Your task to perform on an android device: open chrome and create a bookmark for the current page Image 0: 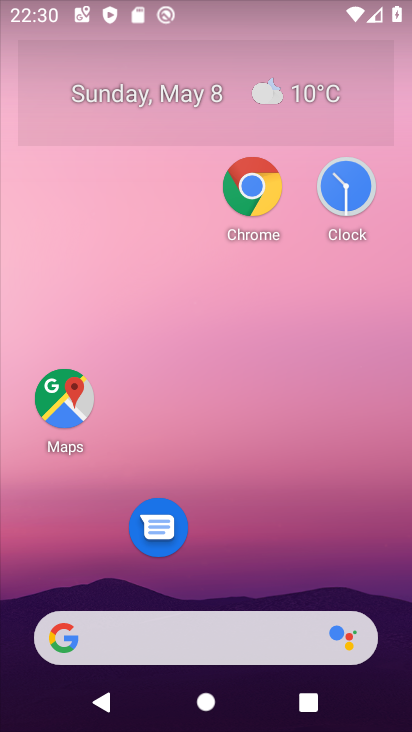
Step 0: click (242, 192)
Your task to perform on an android device: open chrome and create a bookmark for the current page Image 1: 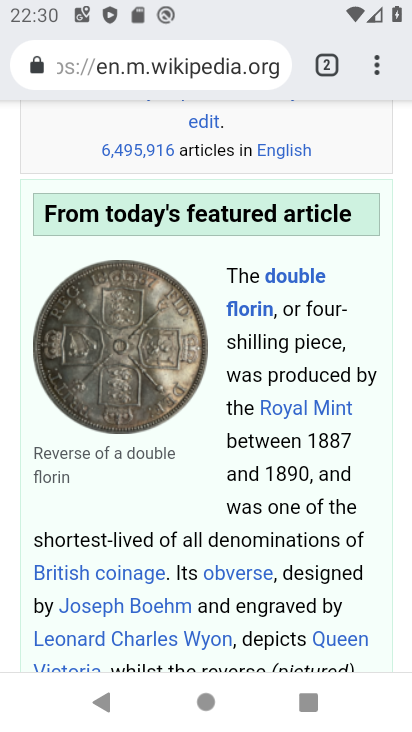
Step 1: click (367, 56)
Your task to perform on an android device: open chrome and create a bookmark for the current page Image 2: 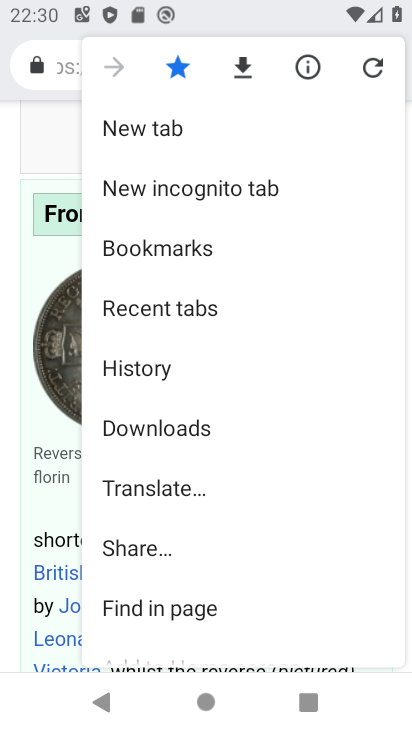
Step 2: click (302, 254)
Your task to perform on an android device: open chrome and create a bookmark for the current page Image 3: 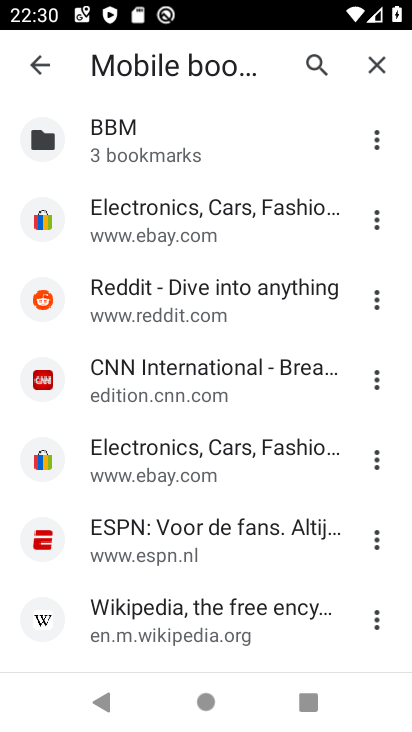
Step 3: task complete